Your task to perform on an android device: allow notifications from all sites in the chrome app Image 0: 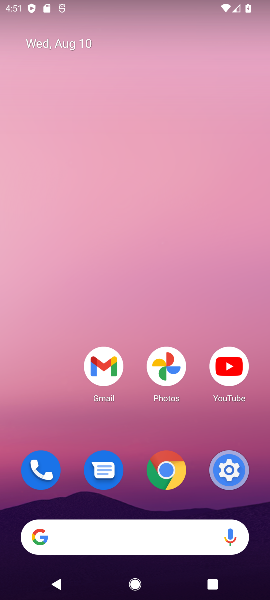
Step 0: drag from (112, 433) to (165, 104)
Your task to perform on an android device: allow notifications from all sites in the chrome app Image 1: 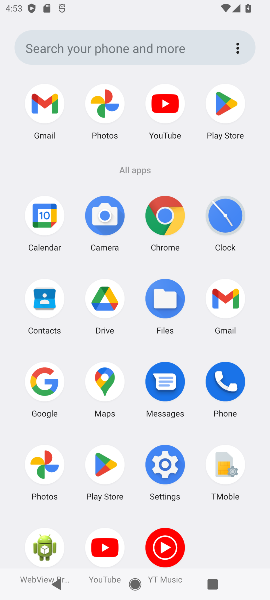
Step 1: click (157, 239)
Your task to perform on an android device: allow notifications from all sites in the chrome app Image 2: 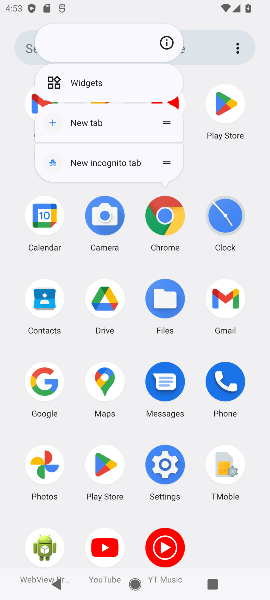
Step 2: click (163, 46)
Your task to perform on an android device: allow notifications from all sites in the chrome app Image 3: 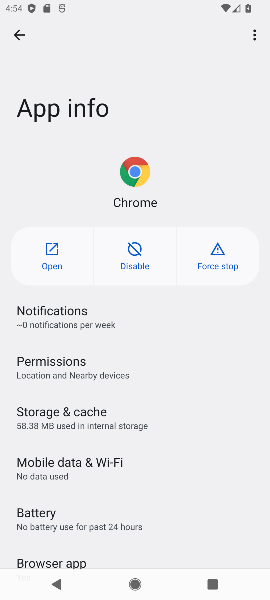
Step 3: click (80, 370)
Your task to perform on an android device: allow notifications from all sites in the chrome app Image 4: 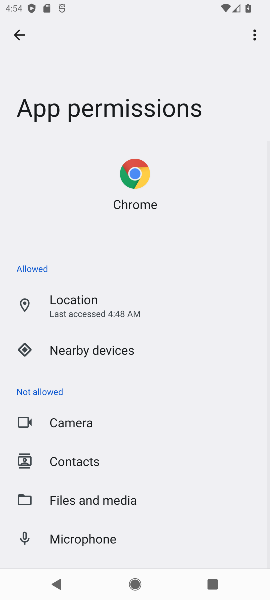
Step 4: click (96, 419)
Your task to perform on an android device: allow notifications from all sites in the chrome app Image 5: 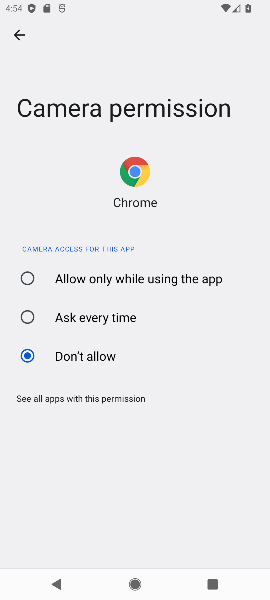
Step 5: click (144, 275)
Your task to perform on an android device: allow notifications from all sites in the chrome app Image 6: 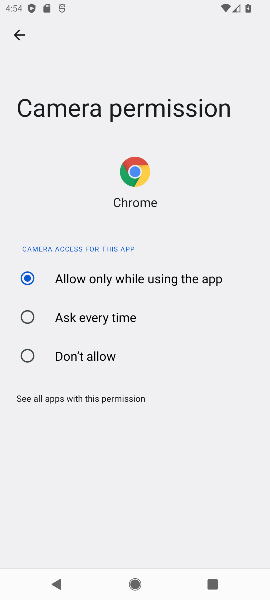
Step 6: click (21, 47)
Your task to perform on an android device: allow notifications from all sites in the chrome app Image 7: 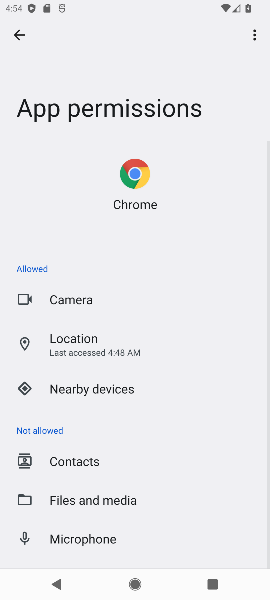
Step 7: click (67, 396)
Your task to perform on an android device: allow notifications from all sites in the chrome app Image 8: 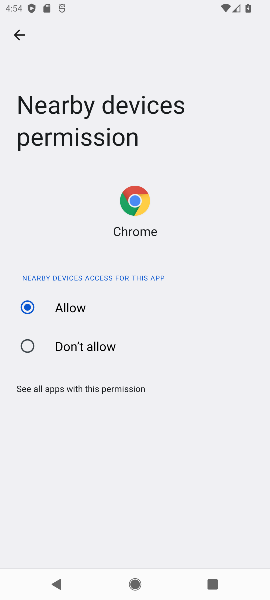
Step 8: click (23, 43)
Your task to perform on an android device: allow notifications from all sites in the chrome app Image 9: 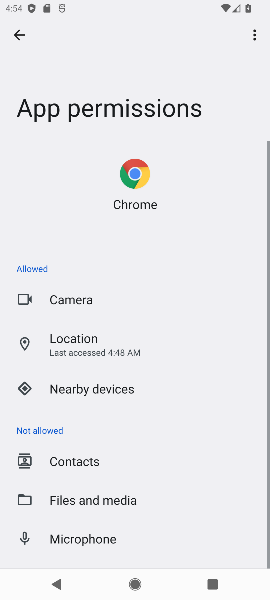
Step 9: click (66, 545)
Your task to perform on an android device: allow notifications from all sites in the chrome app Image 10: 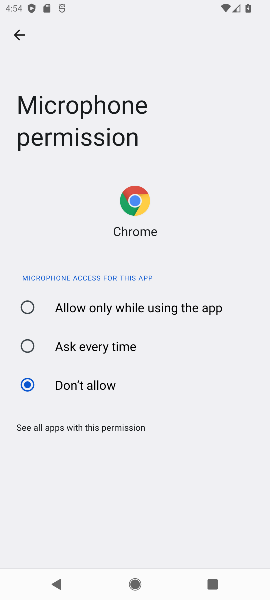
Step 10: click (85, 310)
Your task to perform on an android device: allow notifications from all sites in the chrome app Image 11: 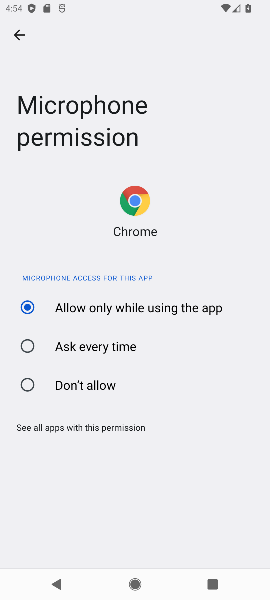
Step 11: click (17, 41)
Your task to perform on an android device: allow notifications from all sites in the chrome app Image 12: 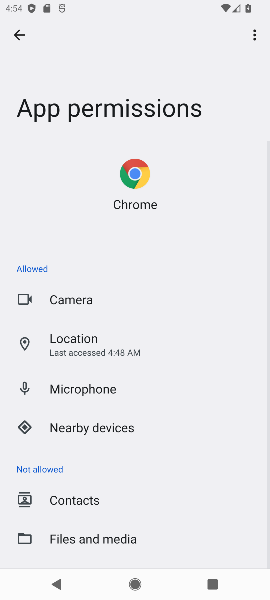
Step 12: click (62, 509)
Your task to perform on an android device: allow notifications from all sites in the chrome app Image 13: 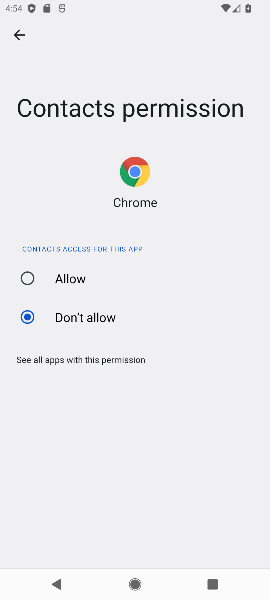
Step 13: click (63, 282)
Your task to perform on an android device: allow notifications from all sites in the chrome app Image 14: 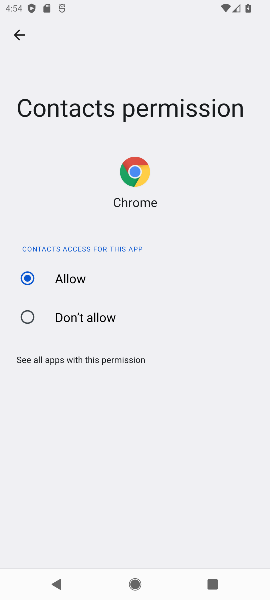
Step 14: click (17, 39)
Your task to perform on an android device: allow notifications from all sites in the chrome app Image 15: 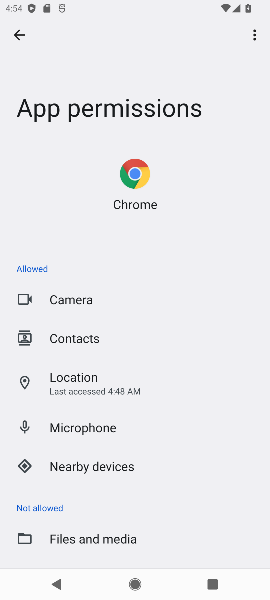
Step 15: click (87, 544)
Your task to perform on an android device: allow notifications from all sites in the chrome app Image 16: 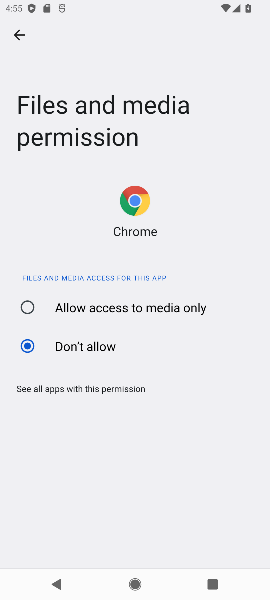
Step 16: click (94, 305)
Your task to perform on an android device: allow notifications from all sites in the chrome app Image 17: 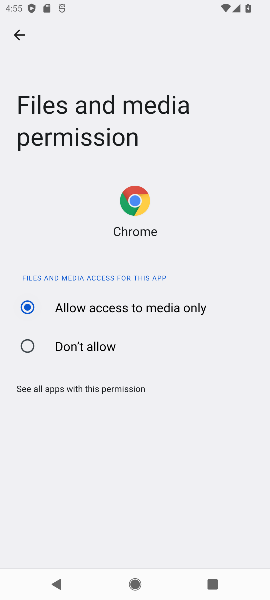
Step 17: click (25, 41)
Your task to perform on an android device: allow notifications from all sites in the chrome app Image 18: 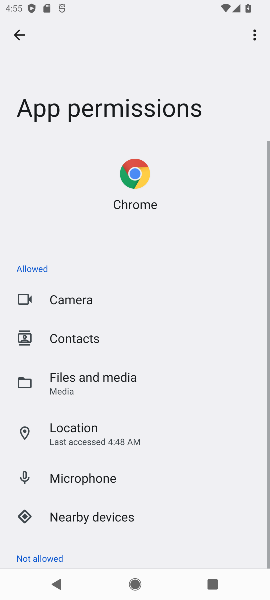
Step 18: task complete